Your task to perform on an android device: set the stopwatch Image 0: 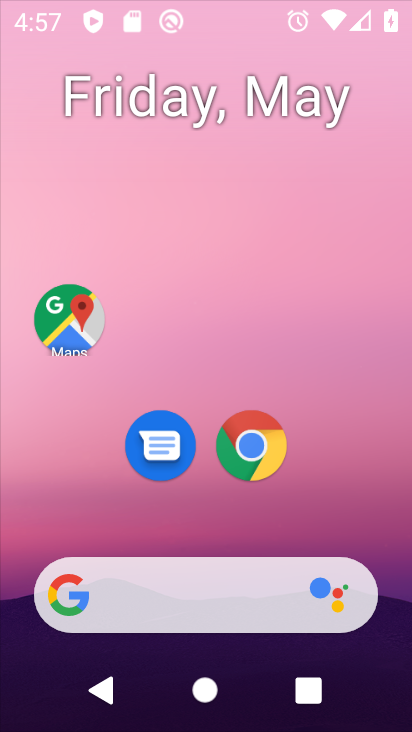
Step 0: press back button
Your task to perform on an android device: set the stopwatch Image 1: 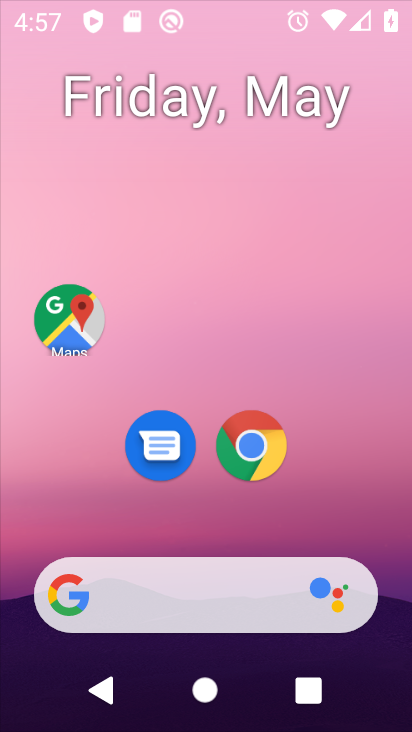
Step 1: click (119, 223)
Your task to perform on an android device: set the stopwatch Image 2: 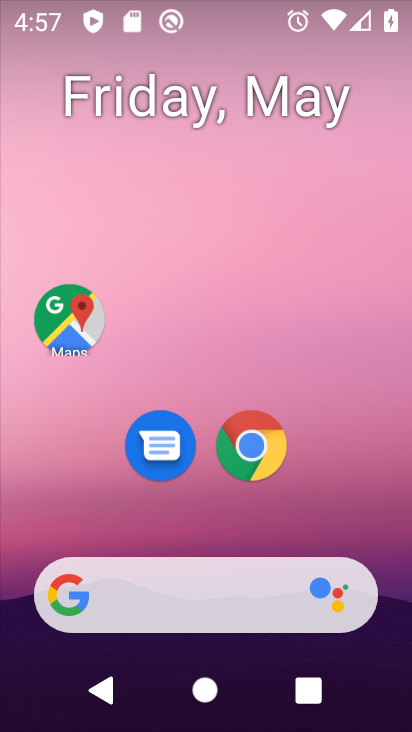
Step 2: drag from (355, 511) to (140, 120)
Your task to perform on an android device: set the stopwatch Image 3: 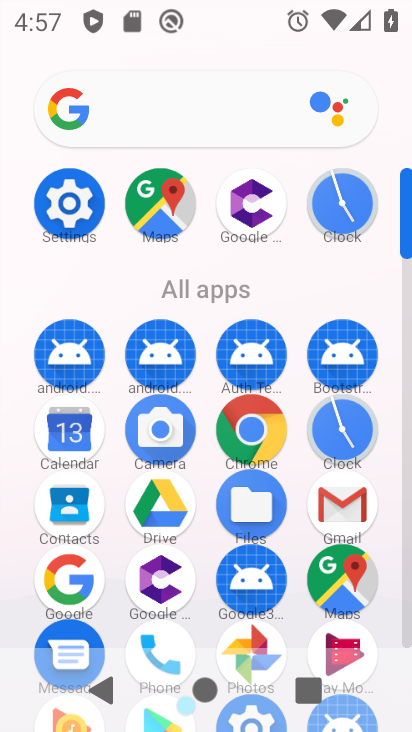
Step 3: click (338, 200)
Your task to perform on an android device: set the stopwatch Image 4: 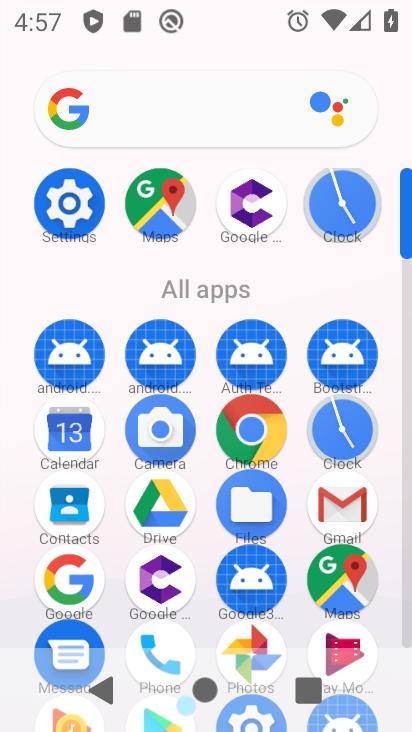
Step 4: click (338, 200)
Your task to perform on an android device: set the stopwatch Image 5: 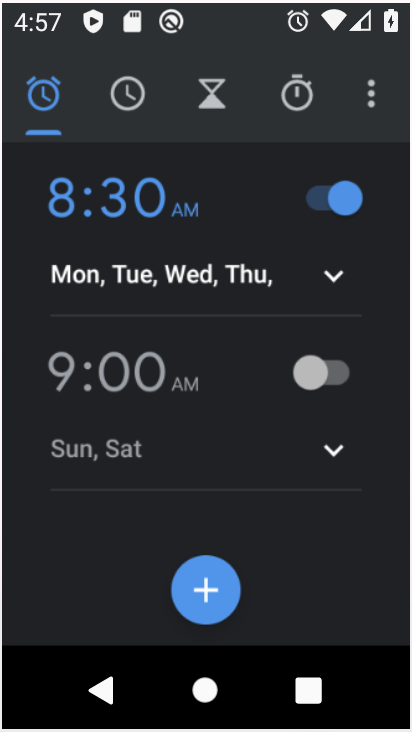
Step 5: click (340, 214)
Your task to perform on an android device: set the stopwatch Image 6: 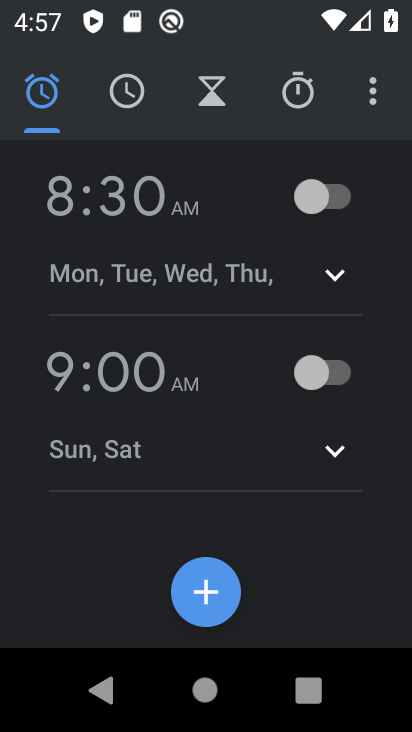
Step 6: click (288, 92)
Your task to perform on an android device: set the stopwatch Image 7: 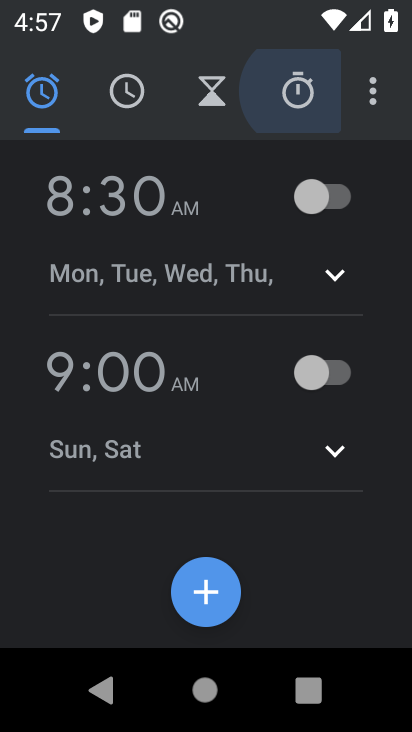
Step 7: click (288, 92)
Your task to perform on an android device: set the stopwatch Image 8: 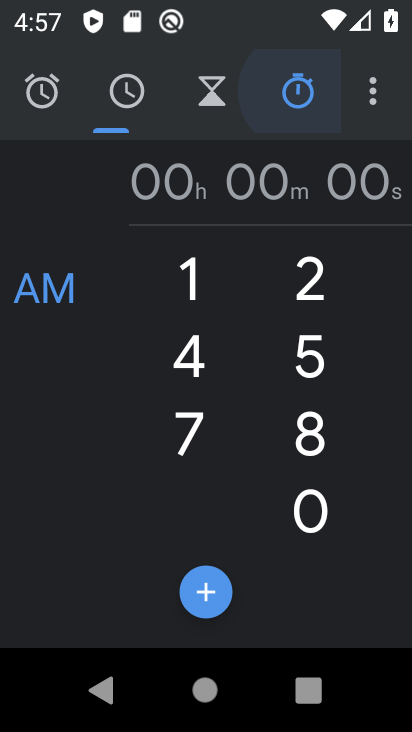
Step 8: click (288, 92)
Your task to perform on an android device: set the stopwatch Image 9: 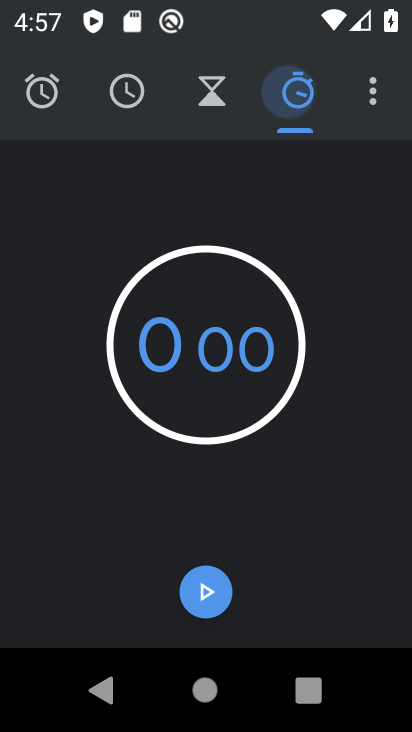
Step 9: click (289, 92)
Your task to perform on an android device: set the stopwatch Image 10: 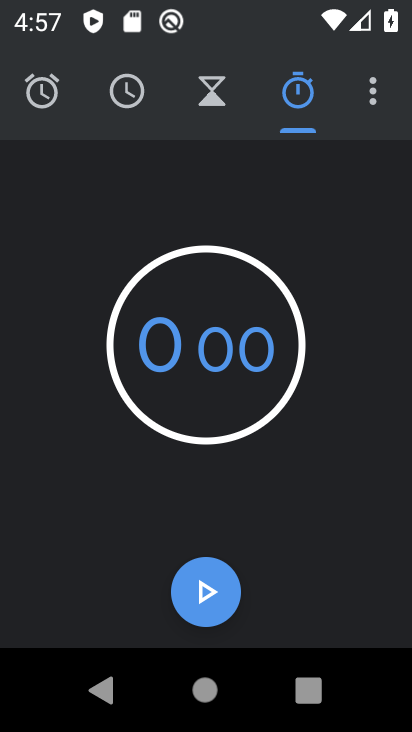
Step 10: click (223, 588)
Your task to perform on an android device: set the stopwatch Image 11: 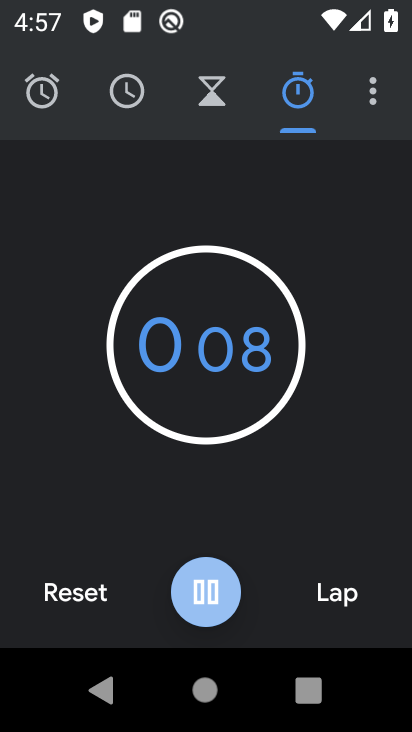
Step 11: click (206, 596)
Your task to perform on an android device: set the stopwatch Image 12: 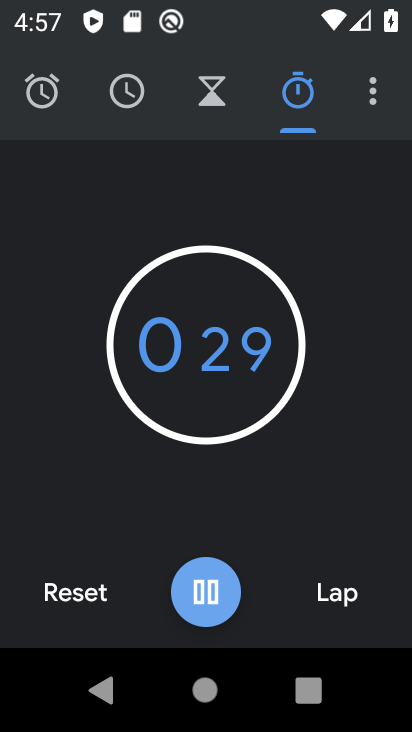
Step 12: click (205, 596)
Your task to perform on an android device: set the stopwatch Image 13: 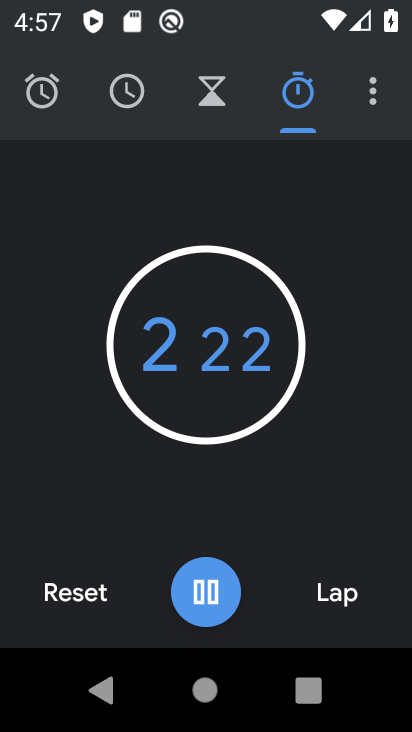
Step 13: click (201, 594)
Your task to perform on an android device: set the stopwatch Image 14: 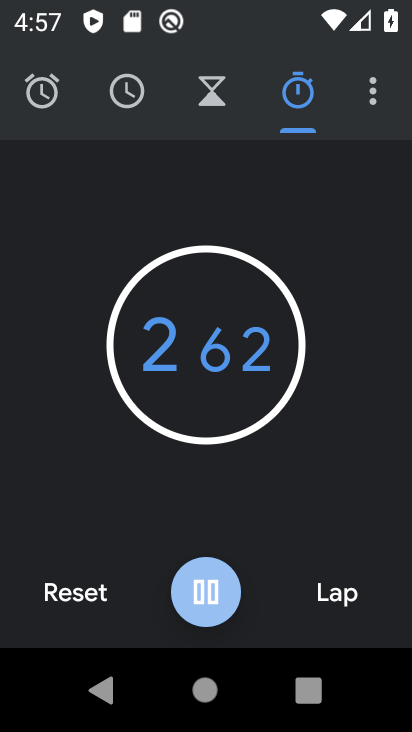
Step 14: click (201, 593)
Your task to perform on an android device: set the stopwatch Image 15: 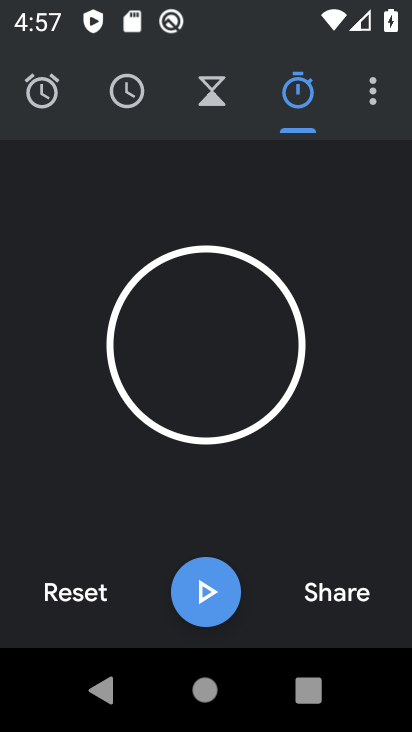
Step 15: click (202, 592)
Your task to perform on an android device: set the stopwatch Image 16: 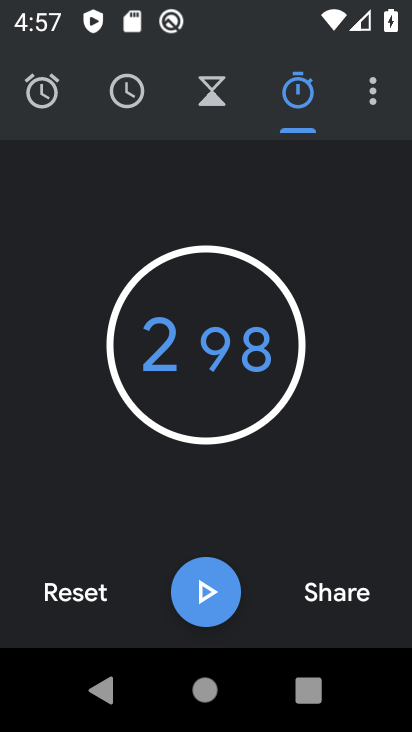
Step 16: task complete